Your task to perform on an android device: turn off notifications settings in the gmail app Image 0: 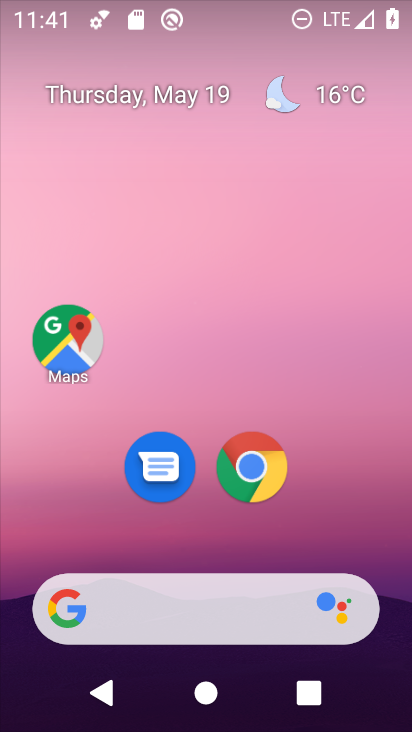
Step 0: drag from (338, 436) to (326, 234)
Your task to perform on an android device: turn off notifications settings in the gmail app Image 1: 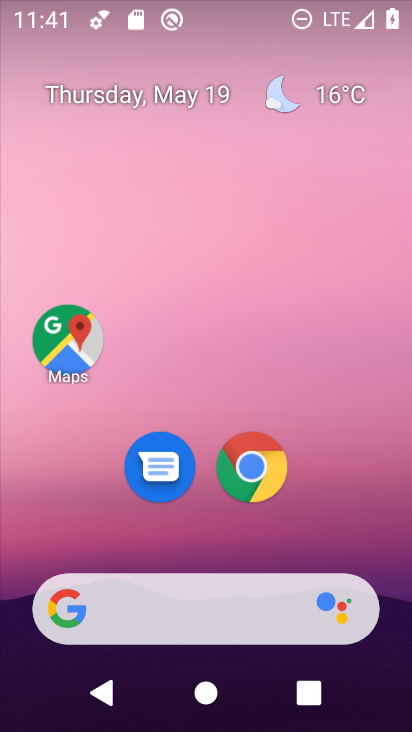
Step 1: drag from (297, 518) to (327, 207)
Your task to perform on an android device: turn off notifications settings in the gmail app Image 2: 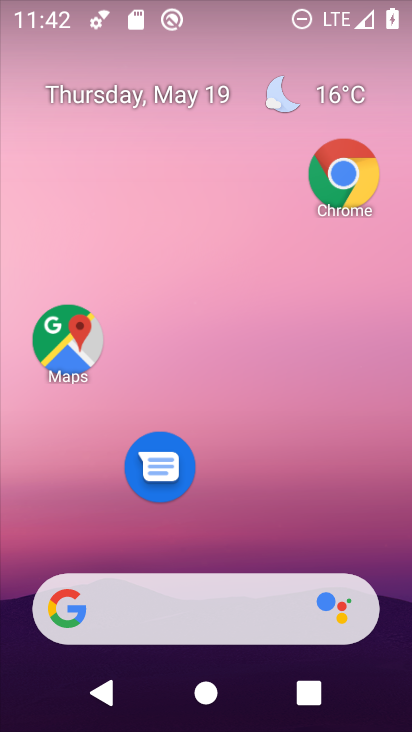
Step 2: drag from (245, 499) to (288, 193)
Your task to perform on an android device: turn off notifications settings in the gmail app Image 3: 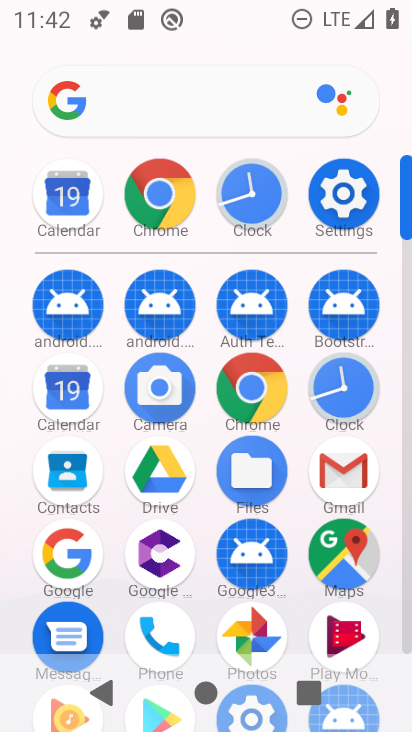
Step 3: click (347, 476)
Your task to perform on an android device: turn off notifications settings in the gmail app Image 4: 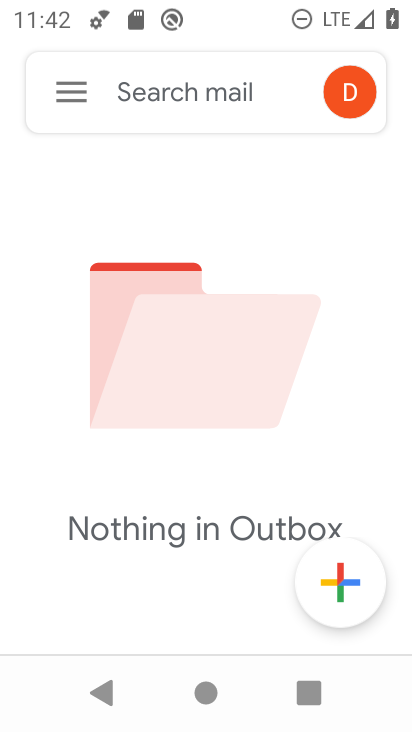
Step 4: click (95, 80)
Your task to perform on an android device: turn off notifications settings in the gmail app Image 5: 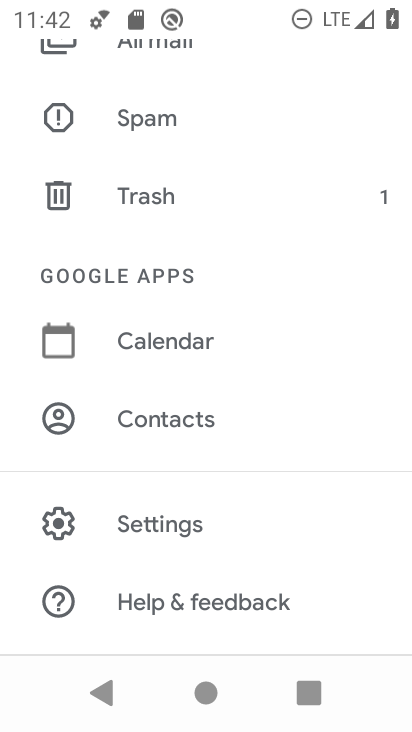
Step 5: click (192, 511)
Your task to perform on an android device: turn off notifications settings in the gmail app Image 6: 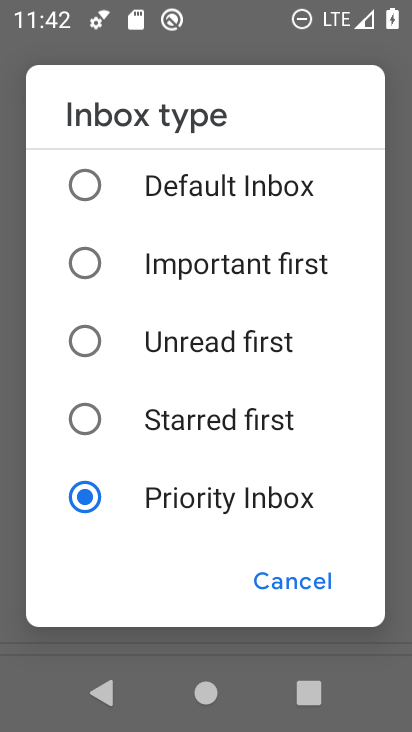
Step 6: click (297, 573)
Your task to perform on an android device: turn off notifications settings in the gmail app Image 7: 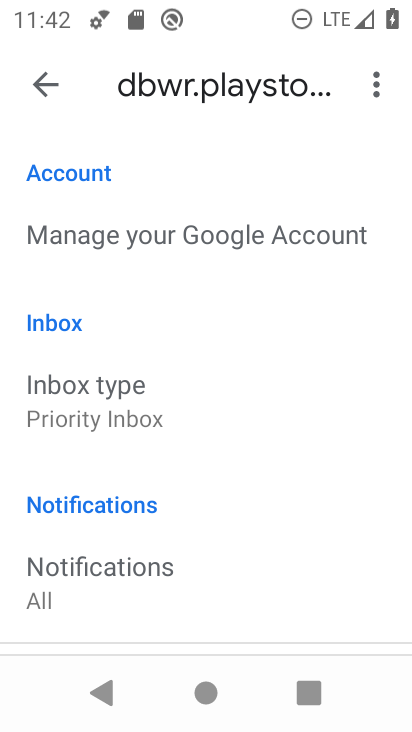
Step 7: click (102, 564)
Your task to perform on an android device: turn off notifications settings in the gmail app Image 8: 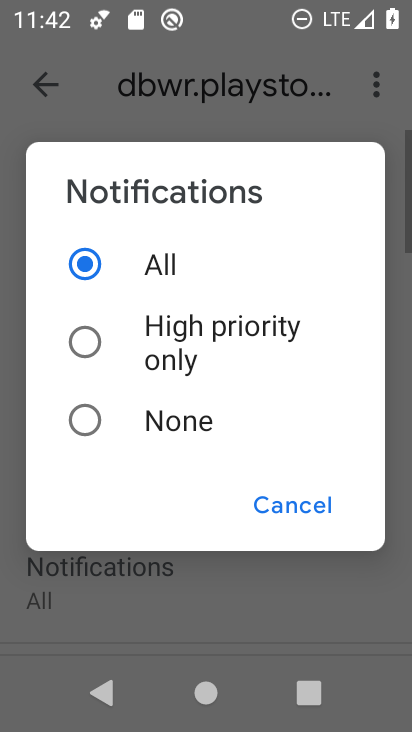
Step 8: click (154, 423)
Your task to perform on an android device: turn off notifications settings in the gmail app Image 9: 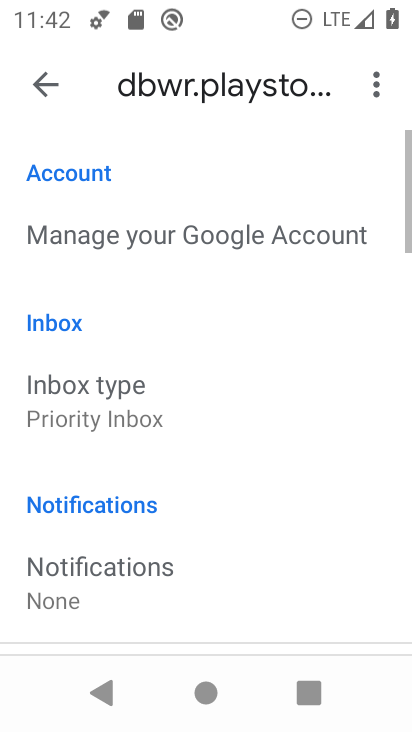
Step 9: task complete